Your task to perform on an android device: turn off sleep mode Image 0: 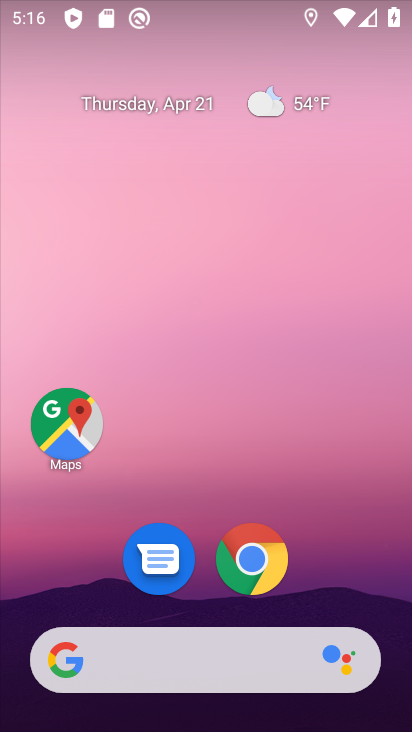
Step 0: drag from (336, 429) to (236, 10)
Your task to perform on an android device: turn off sleep mode Image 1: 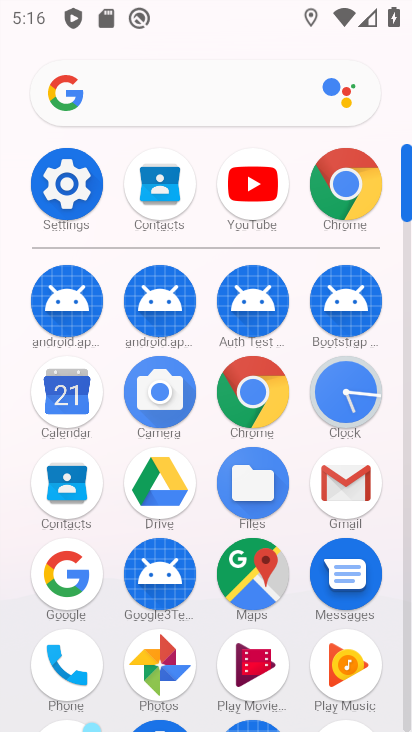
Step 1: click (66, 182)
Your task to perform on an android device: turn off sleep mode Image 2: 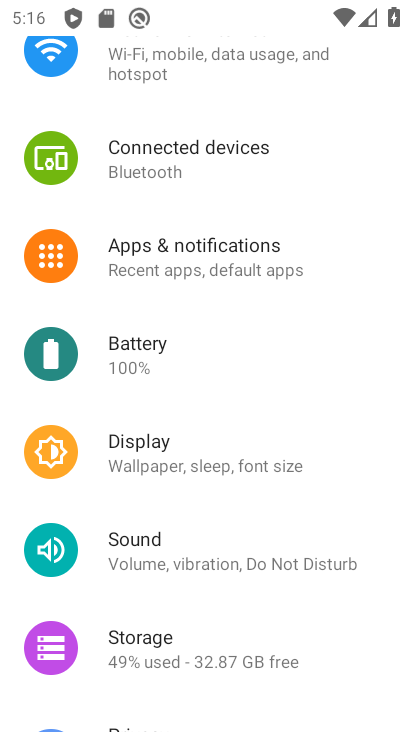
Step 2: click (235, 465)
Your task to perform on an android device: turn off sleep mode Image 3: 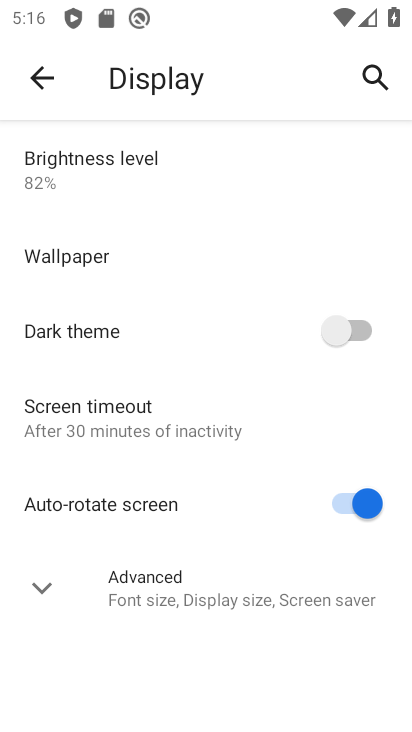
Step 3: click (87, 421)
Your task to perform on an android device: turn off sleep mode Image 4: 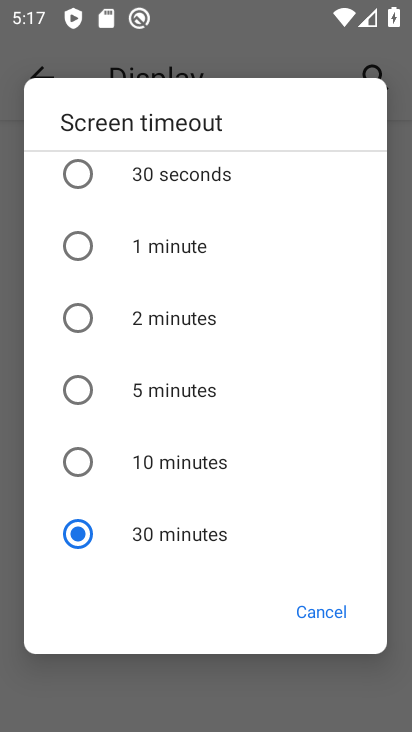
Step 4: task complete